Your task to perform on an android device: What's the weather going to be this weekend? Image 0: 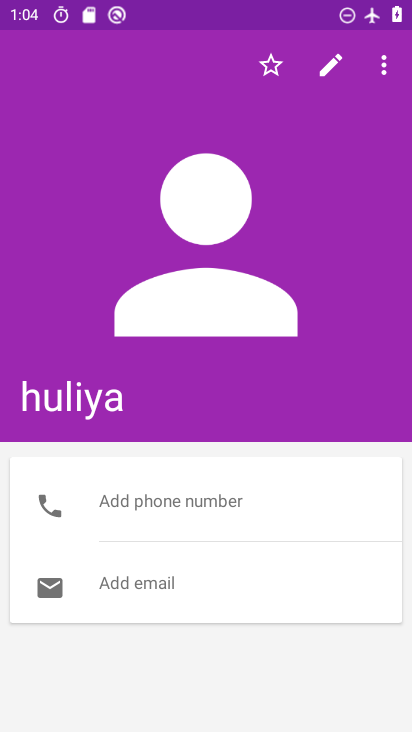
Step 0: press home button
Your task to perform on an android device: What's the weather going to be this weekend? Image 1: 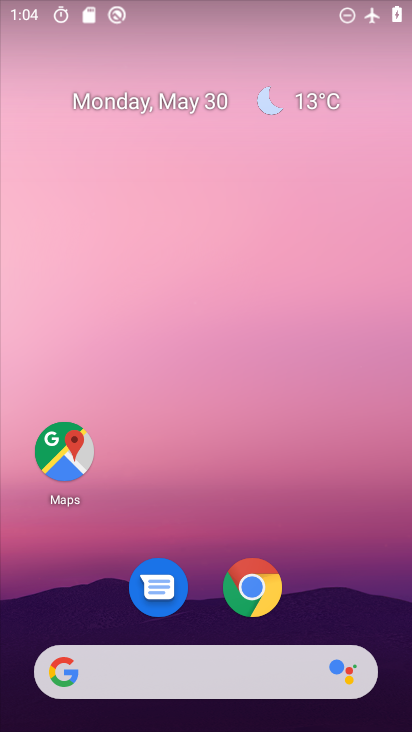
Step 1: click (295, 90)
Your task to perform on an android device: What's the weather going to be this weekend? Image 2: 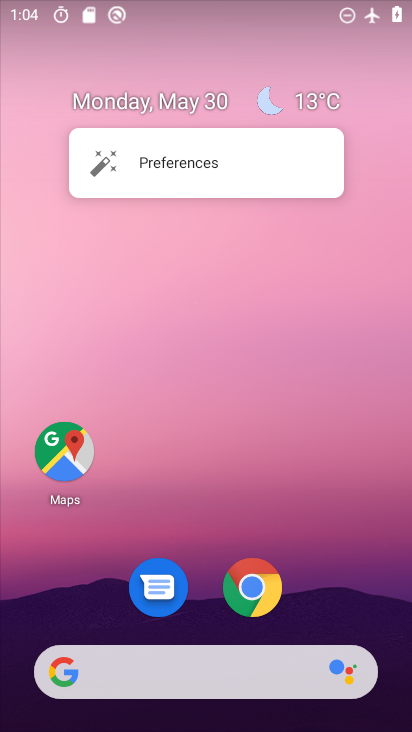
Step 2: click (296, 103)
Your task to perform on an android device: What's the weather going to be this weekend? Image 3: 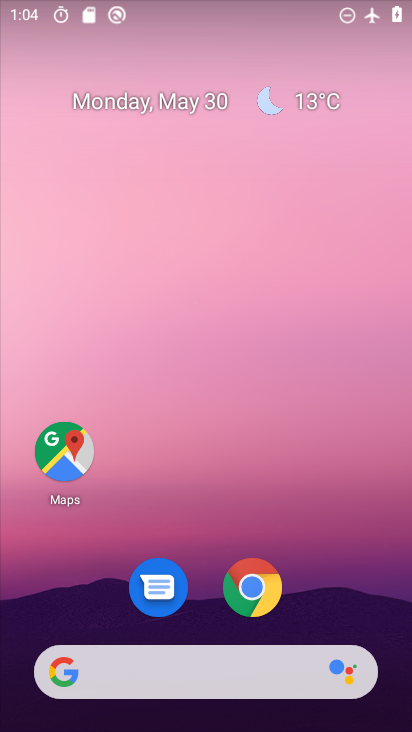
Step 3: click (313, 103)
Your task to perform on an android device: What's the weather going to be this weekend? Image 4: 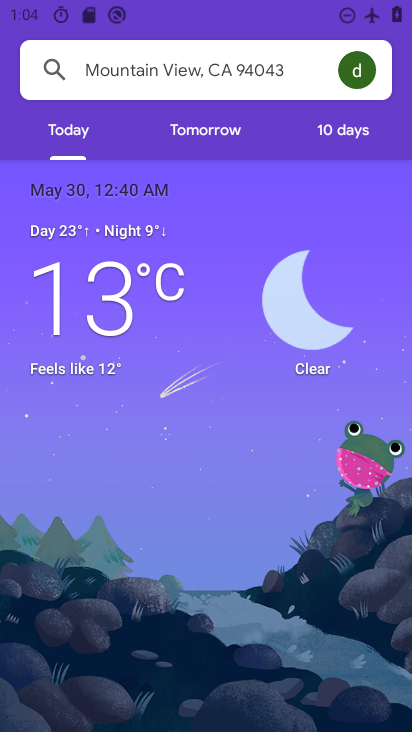
Step 4: click (332, 131)
Your task to perform on an android device: What's the weather going to be this weekend? Image 5: 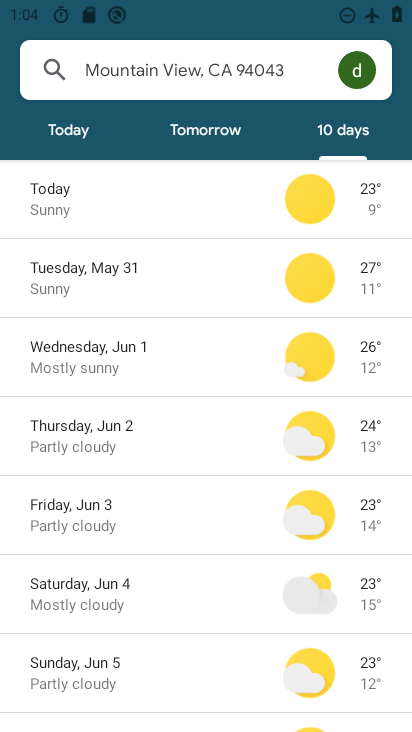
Step 5: task complete